Your task to perform on an android device: Go to Wikipedia Image 0: 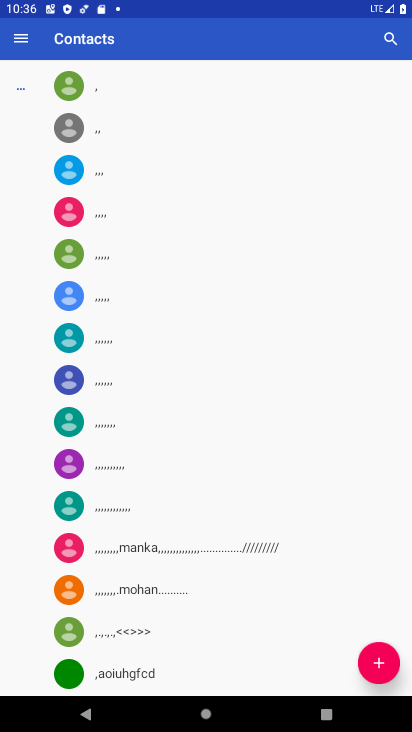
Step 0: press home button
Your task to perform on an android device: Go to Wikipedia Image 1: 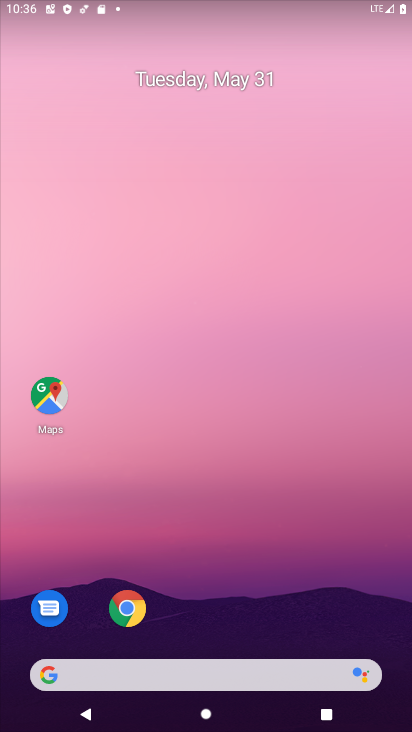
Step 1: click (126, 613)
Your task to perform on an android device: Go to Wikipedia Image 2: 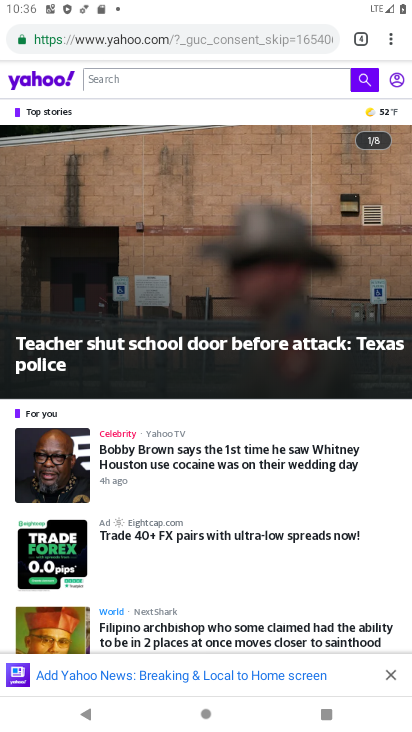
Step 2: click (360, 39)
Your task to perform on an android device: Go to Wikipedia Image 3: 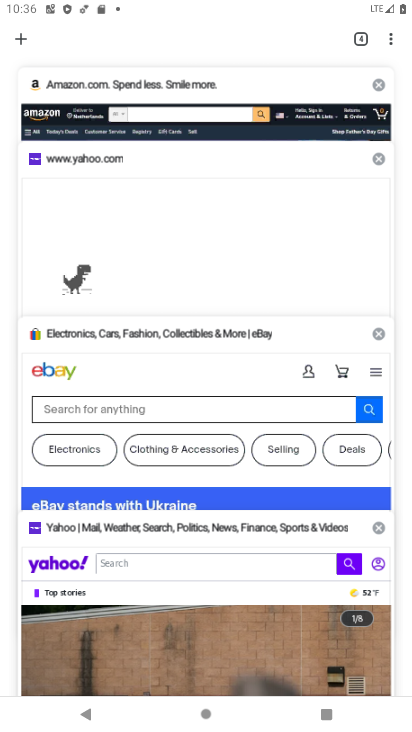
Step 3: click (25, 44)
Your task to perform on an android device: Go to Wikipedia Image 4: 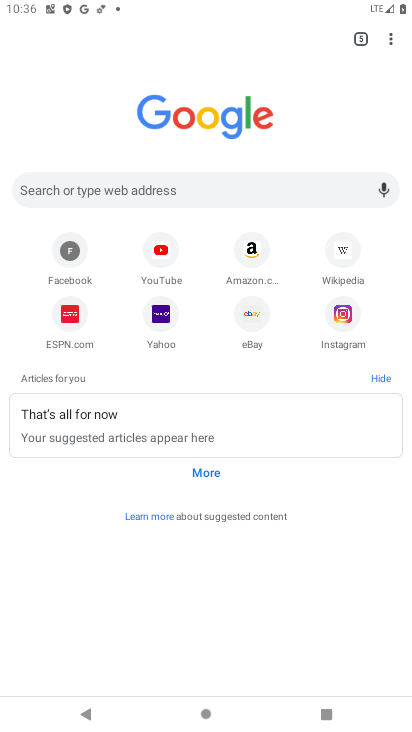
Step 4: click (351, 247)
Your task to perform on an android device: Go to Wikipedia Image 5: 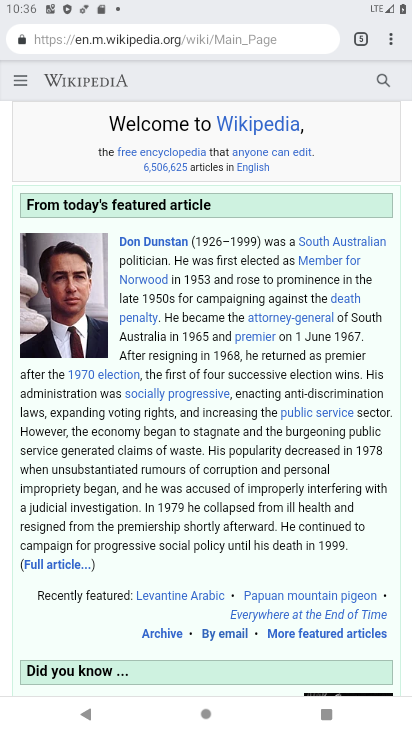
Step 5: task complete